Your task to perform on an android device: turn on improve location accuracy Image 0: 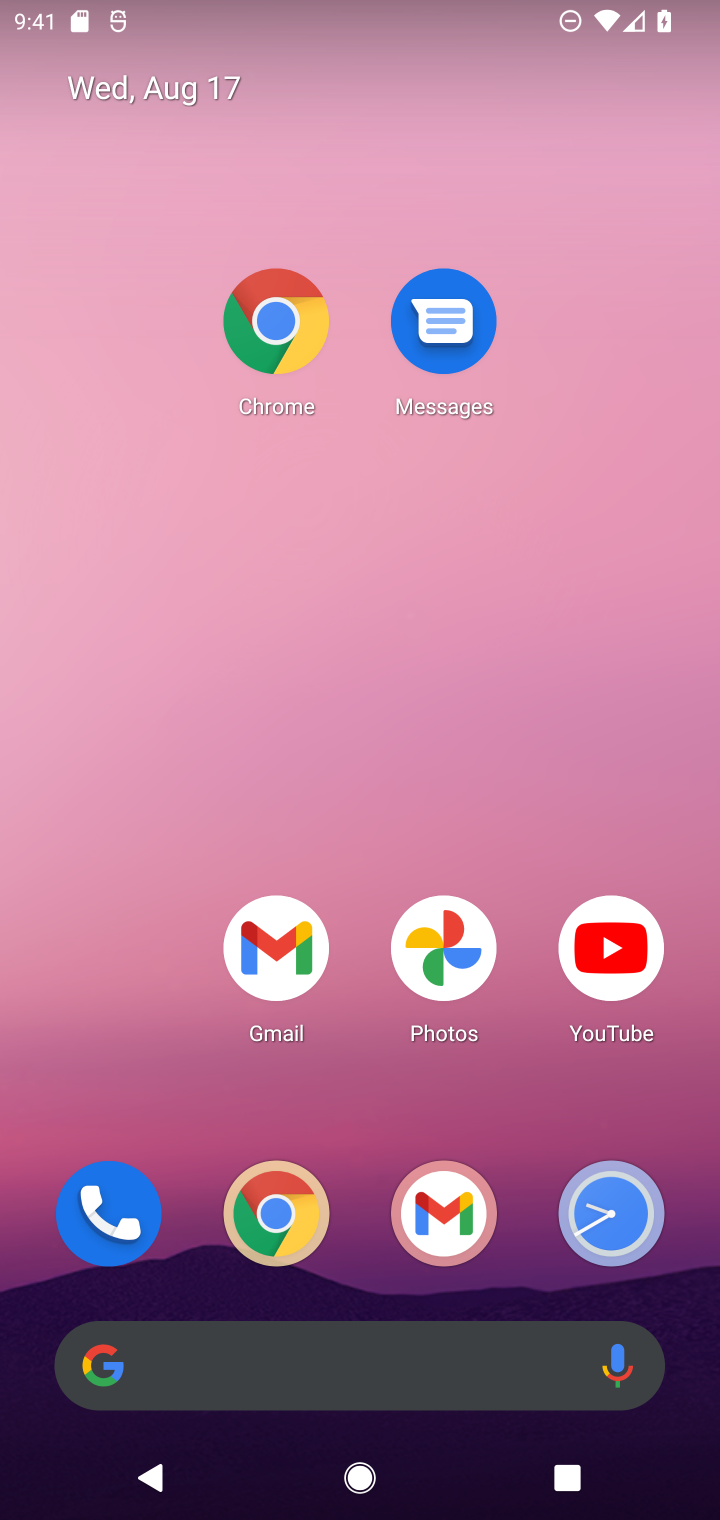
Step 0: drag from (394, 1286) to (459, 441)
Your task to perform on an android device: turn on improve location accuracy Image 1: 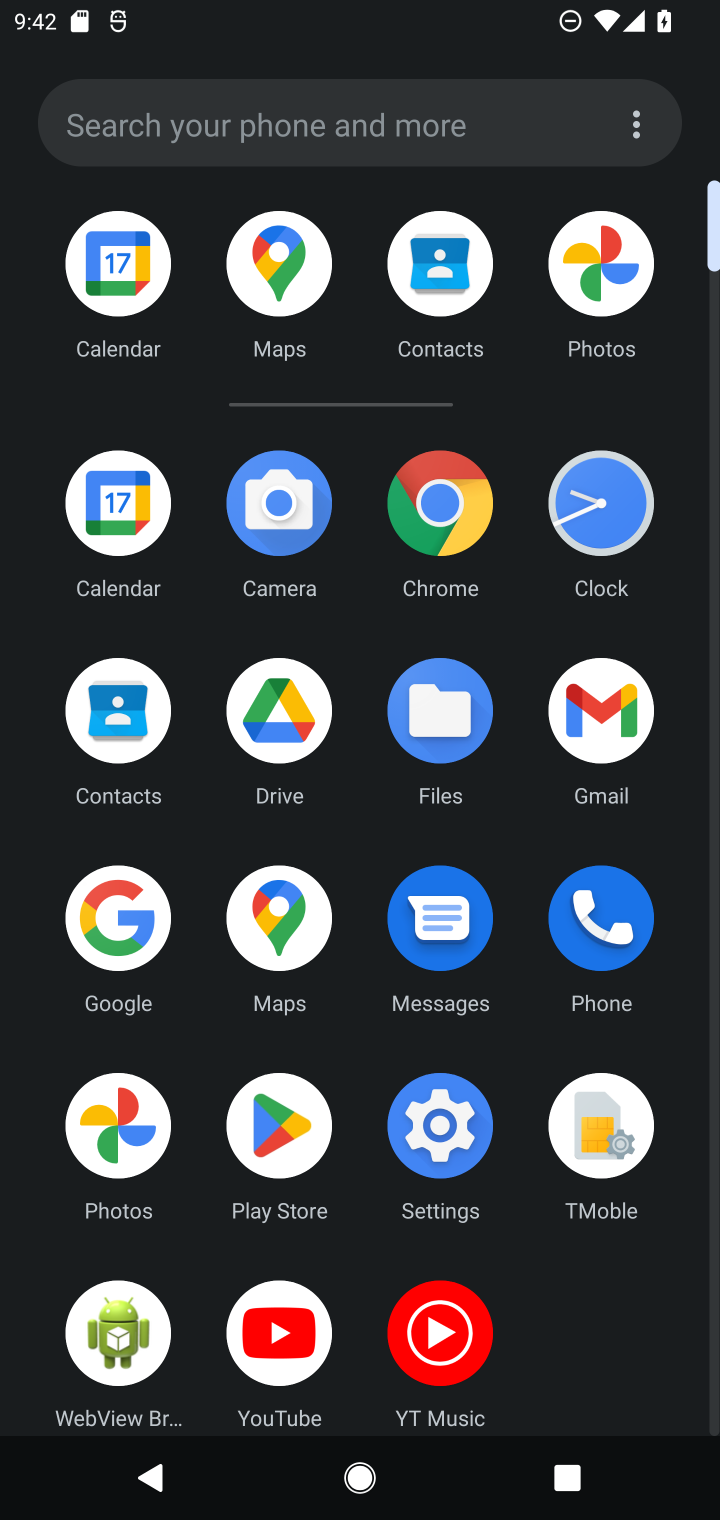
Step 1: click (448, 1081)
Your task to perform on an android device: turn on improve location accuracy Image 2: 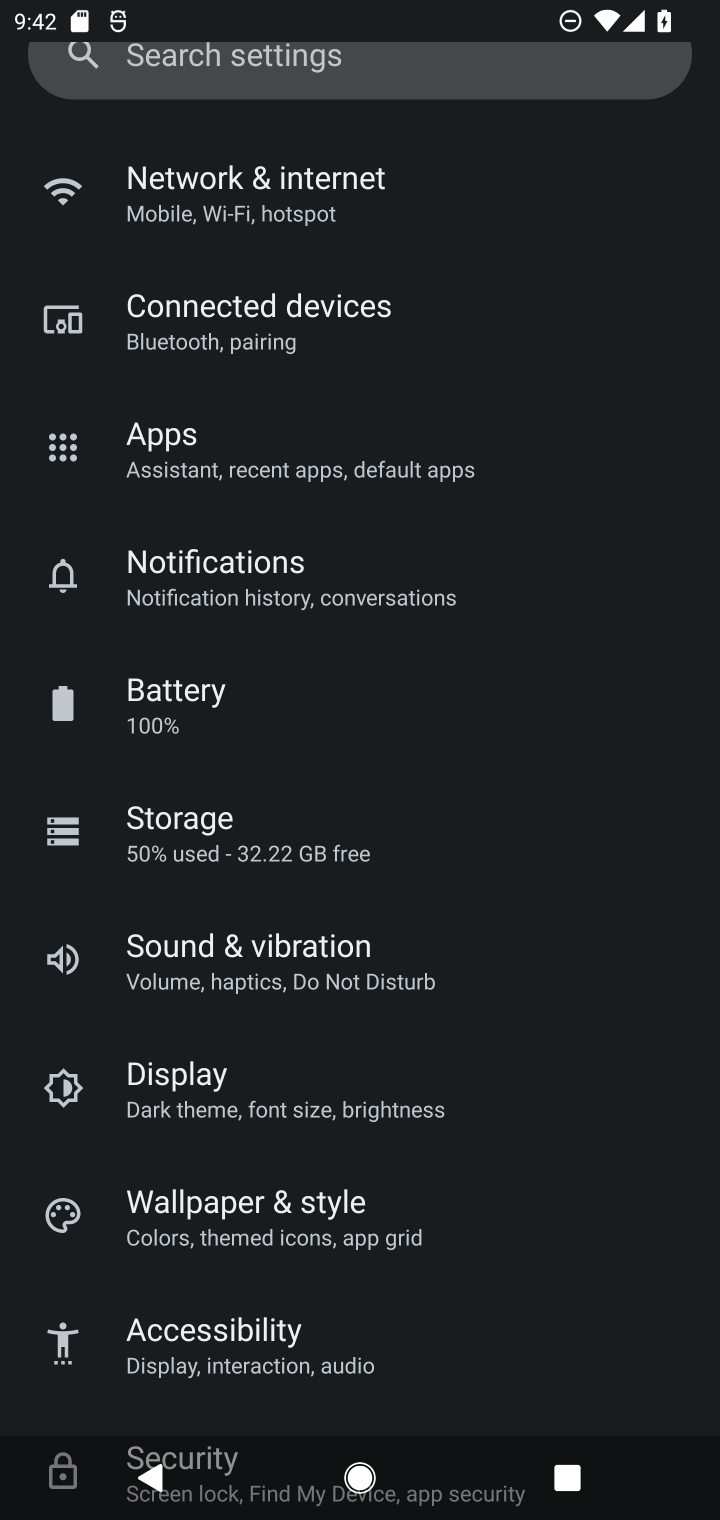
Step 2: drag from (367, 1285) to (343, 780)
Your task to perform on an android device: turn on improve location accuracy Image 3: 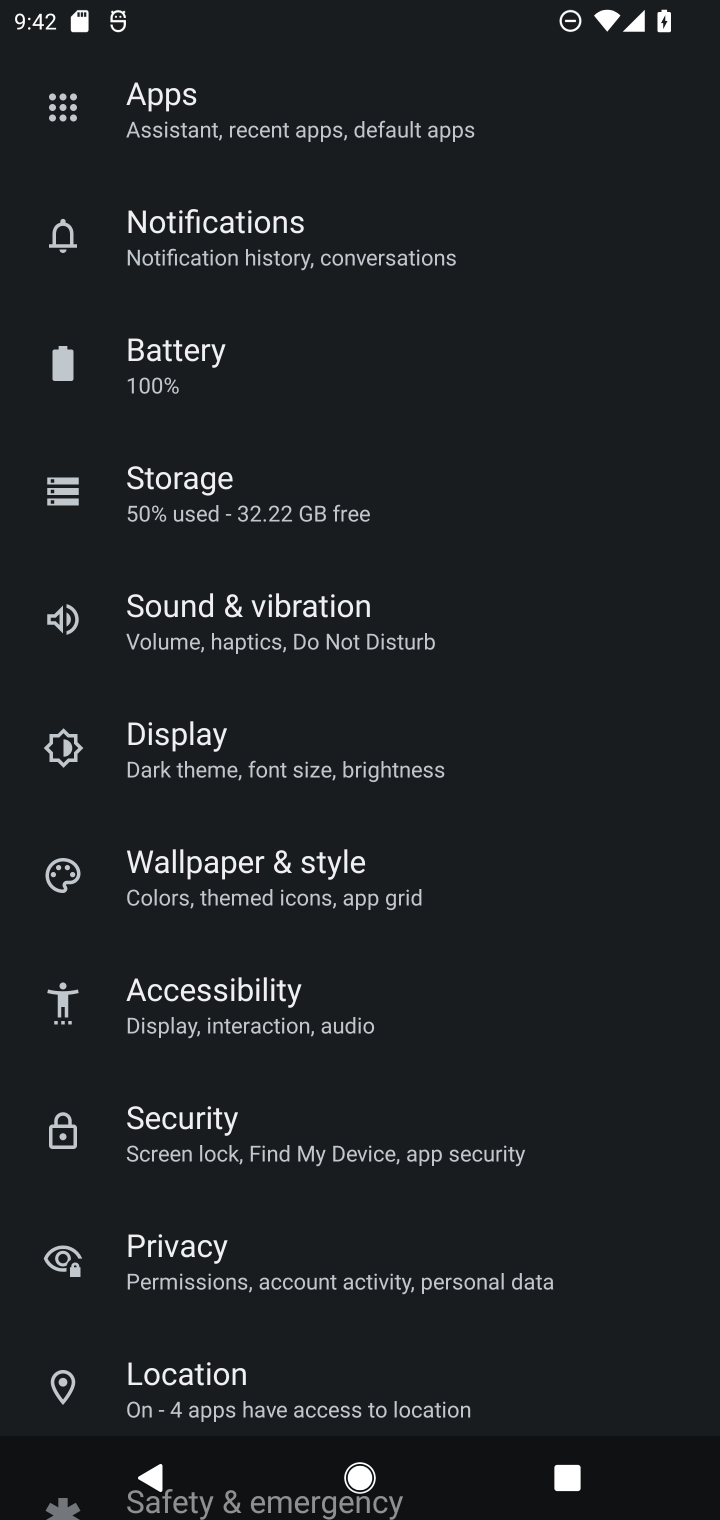
Step 3: click (361, 1363)
Your task to perform on an android device: turn on improve location accuracy Image 4: 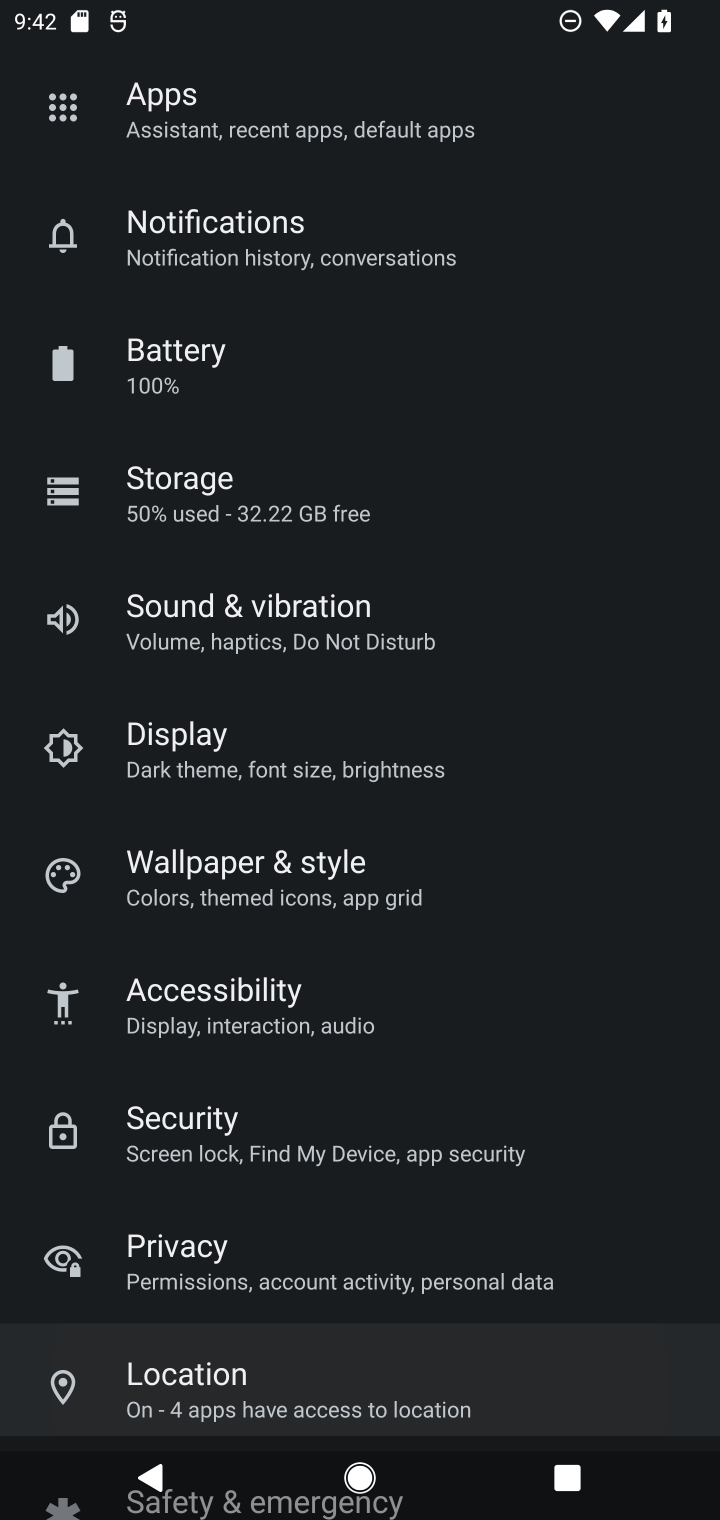
Step 4: task complete